Your task to perform on an android device: Turn on the flashlight Image 0: 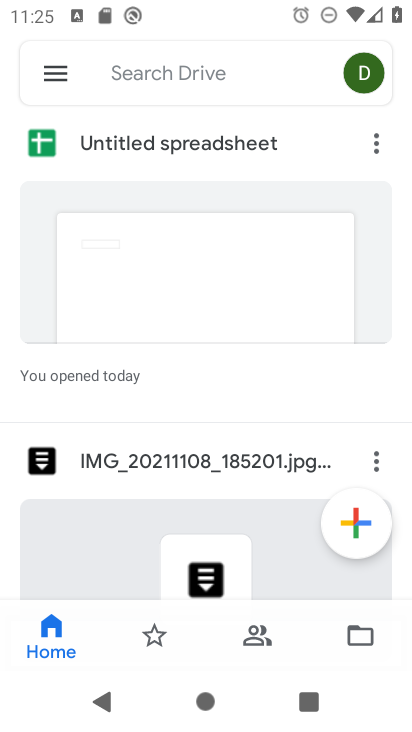
Step 0: press home button
Your task to perform on an android device: Turn on the flashlight Image 1: 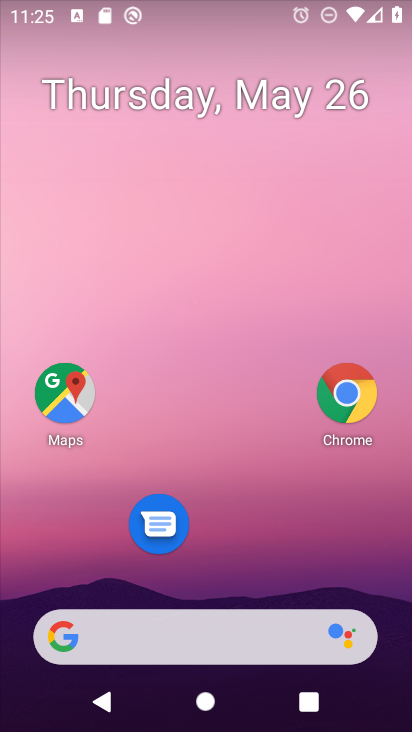
Step 1: drag from (275, 559) to (272, 23)
Your task to perform on an android device: Turn on the flashlight Image 2: 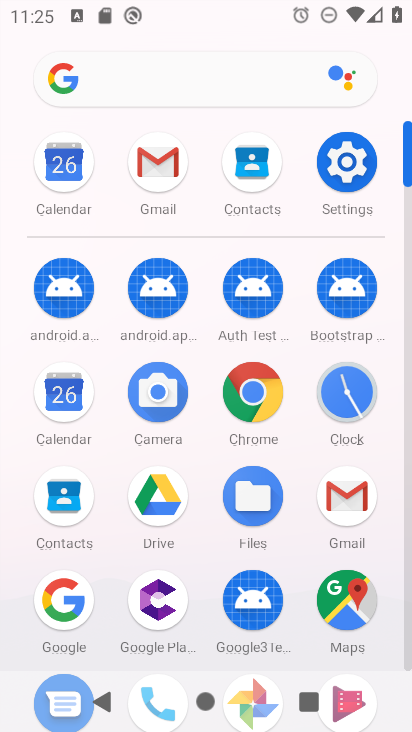
Step 2: click (341, 154)
Your task to perform on an android device: Turn on the flashlight Image 3: 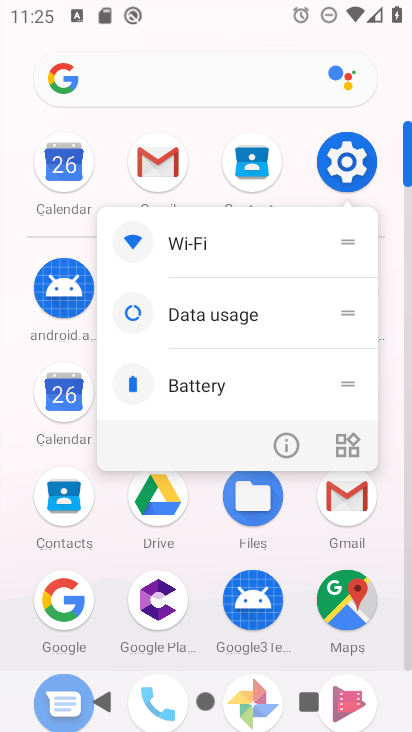
Step 3: click (341, 154)
Your task to perform on an android device: Turn on the flashlight Image 4: 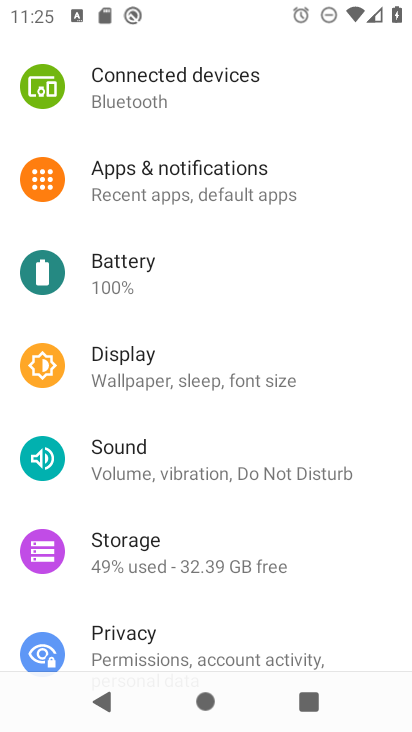
Step 4: drag from (226, 230) to (216, 619)
Your task to perform on an android device: Turn on the flashlight Image 5: 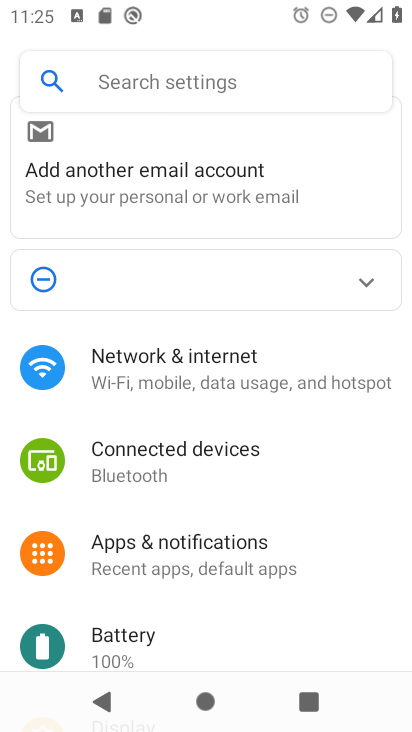
Step 5: drag from (252, 380) to (297, 636)
Your task to perform on an android device: Turn on the flashlight Image 6: 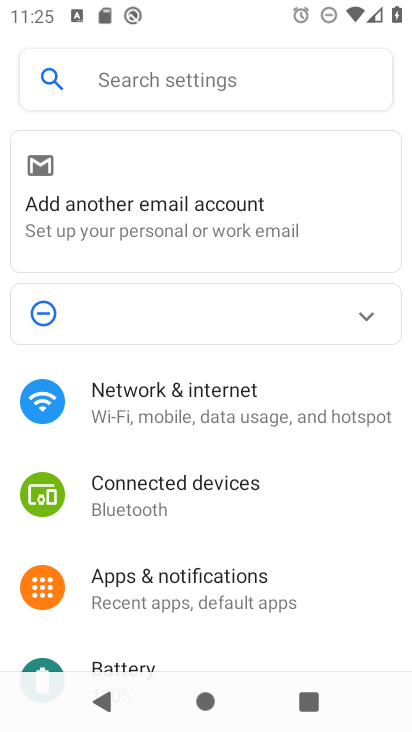
Step 6: click (271, 68)
Your task to perform on an android device: Turn on the flashlight Image 7: 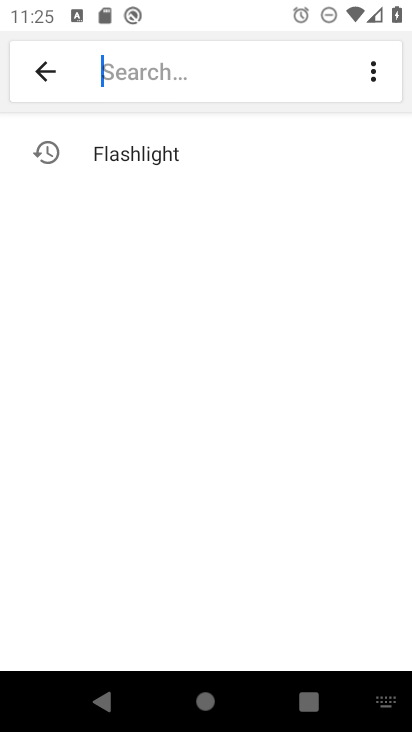
Step 7: click (161, 153)
Your task to perform on an android device: Turn on the flashlight Image 8: 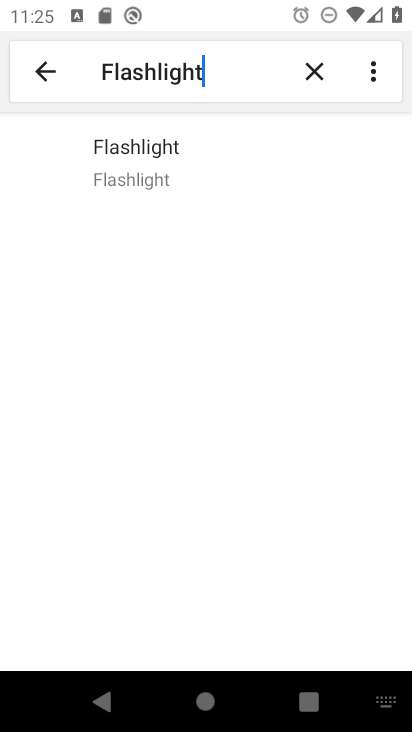
Step 8: click (161, 153)
Your task to perform on an android device: Turn on the flashlight Image 9: 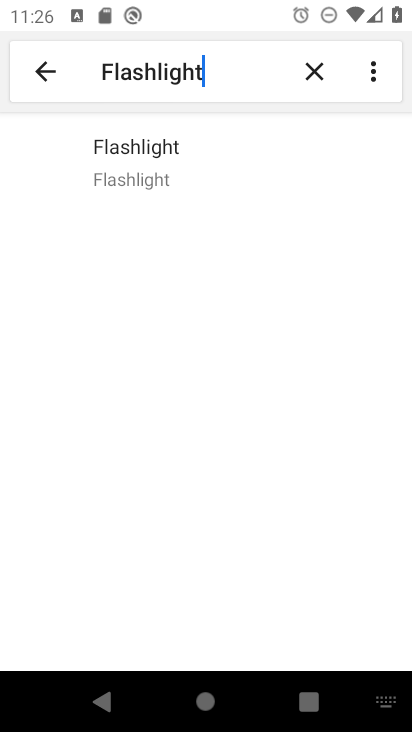
Step 9: task complete